Your task to perform on an android device: Go to settings Image 0: 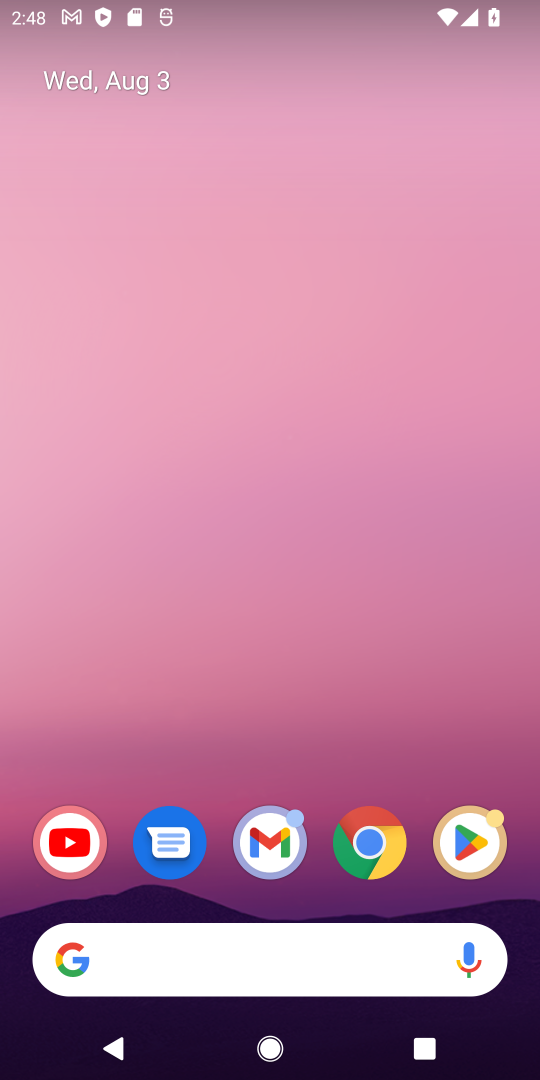
Step 0: drag from (395, 1009) to (255, 112)
Your task to perform on an android device: Go to settings Image 1: 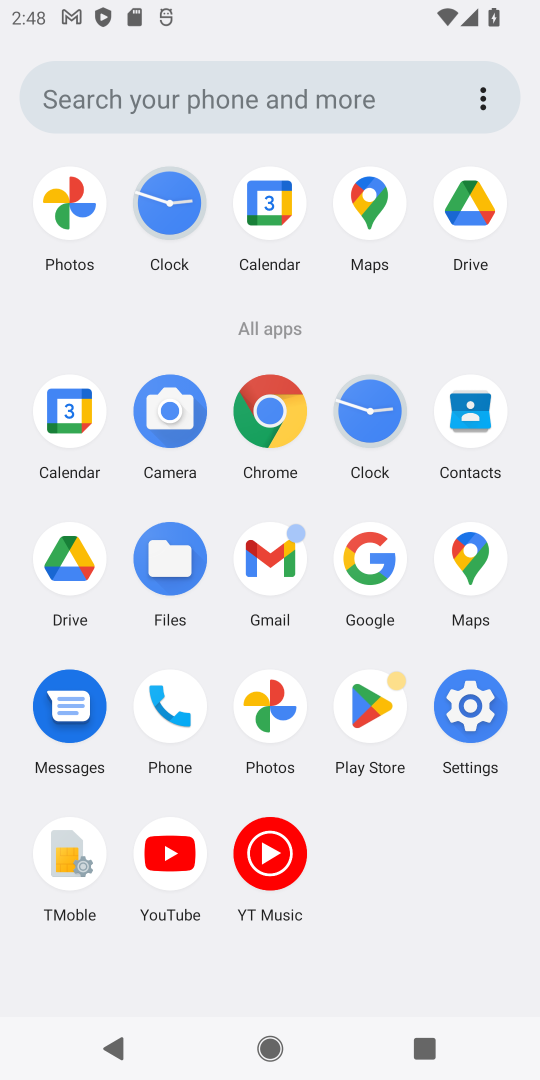
Step 1: click (488, 700)
Your task to perform on an android device: Go to settings Image 2: 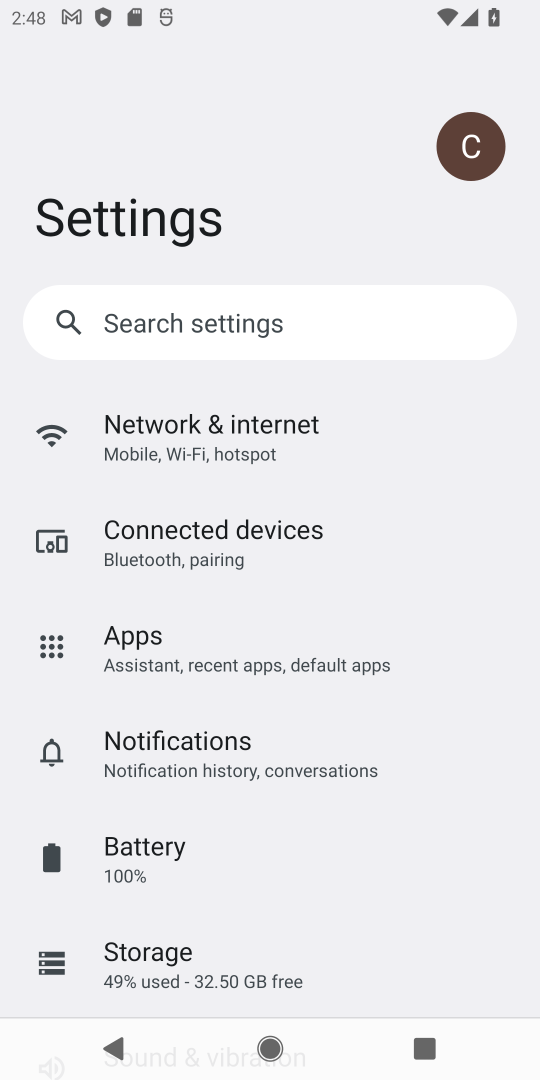
Step 2: task complete